Your task to perform on an android device: View the shopping cart on target. Search for usb-c on target, select the first entry, add it to the cart, then select checkout. Image 0: 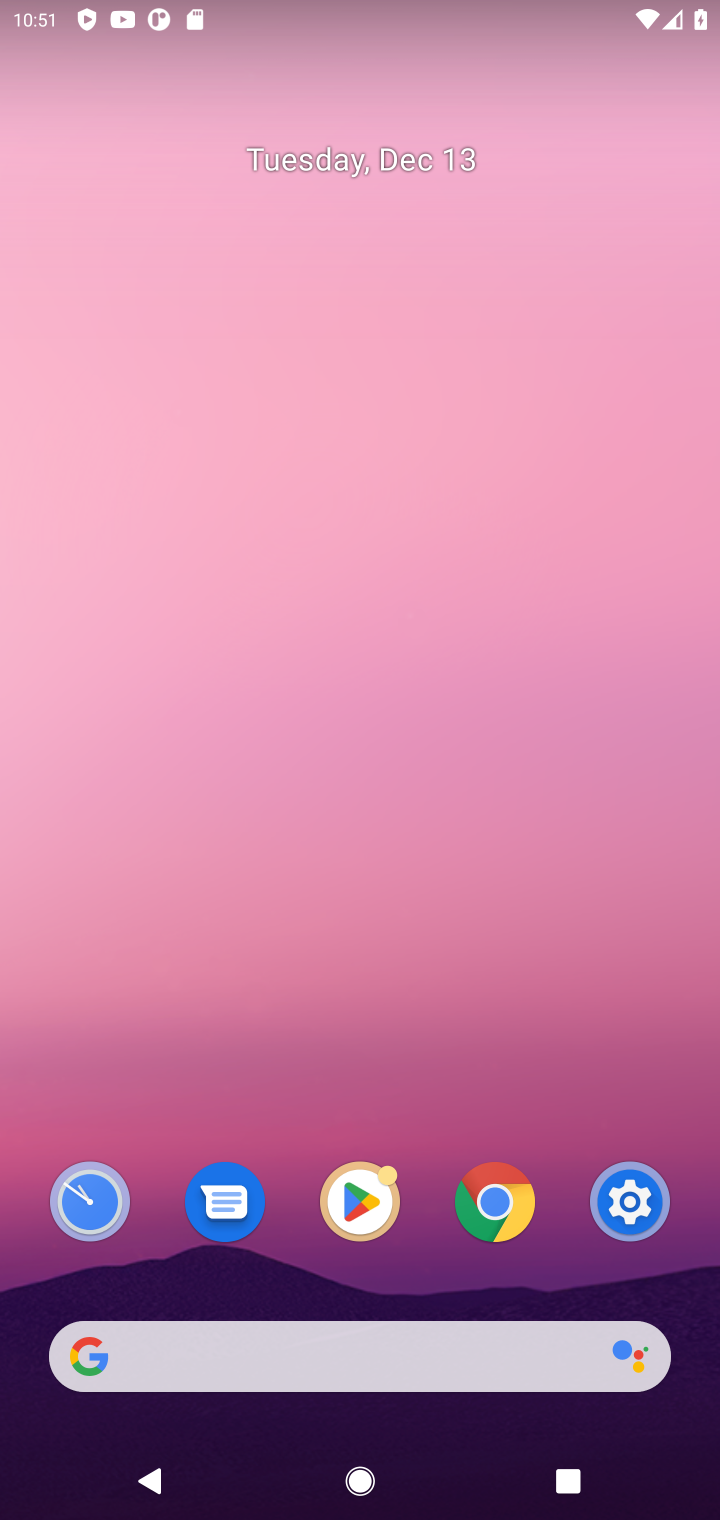
Step 0: click (508, 1196)
Your task to perform on an android device: View the shopping cart on target. Search for usb-c on target, select the first entry, add it to the cart, then select checkout. Image 1: 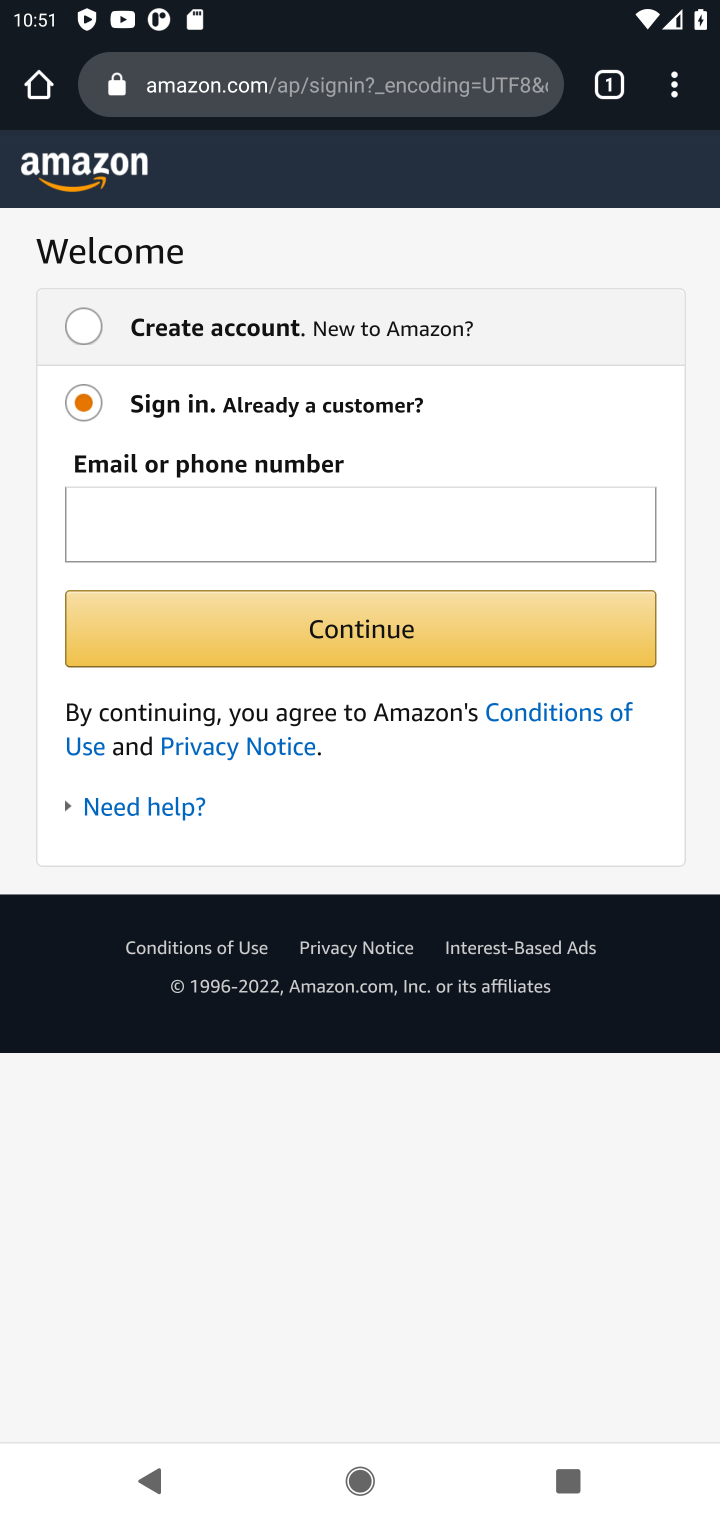
Step 1: click (381, 81)
Your task to perform on an android device: View the shopping cart on target. Search for usb-c on target, select the first entry, add it to the cart, then select checkout. Image 2: 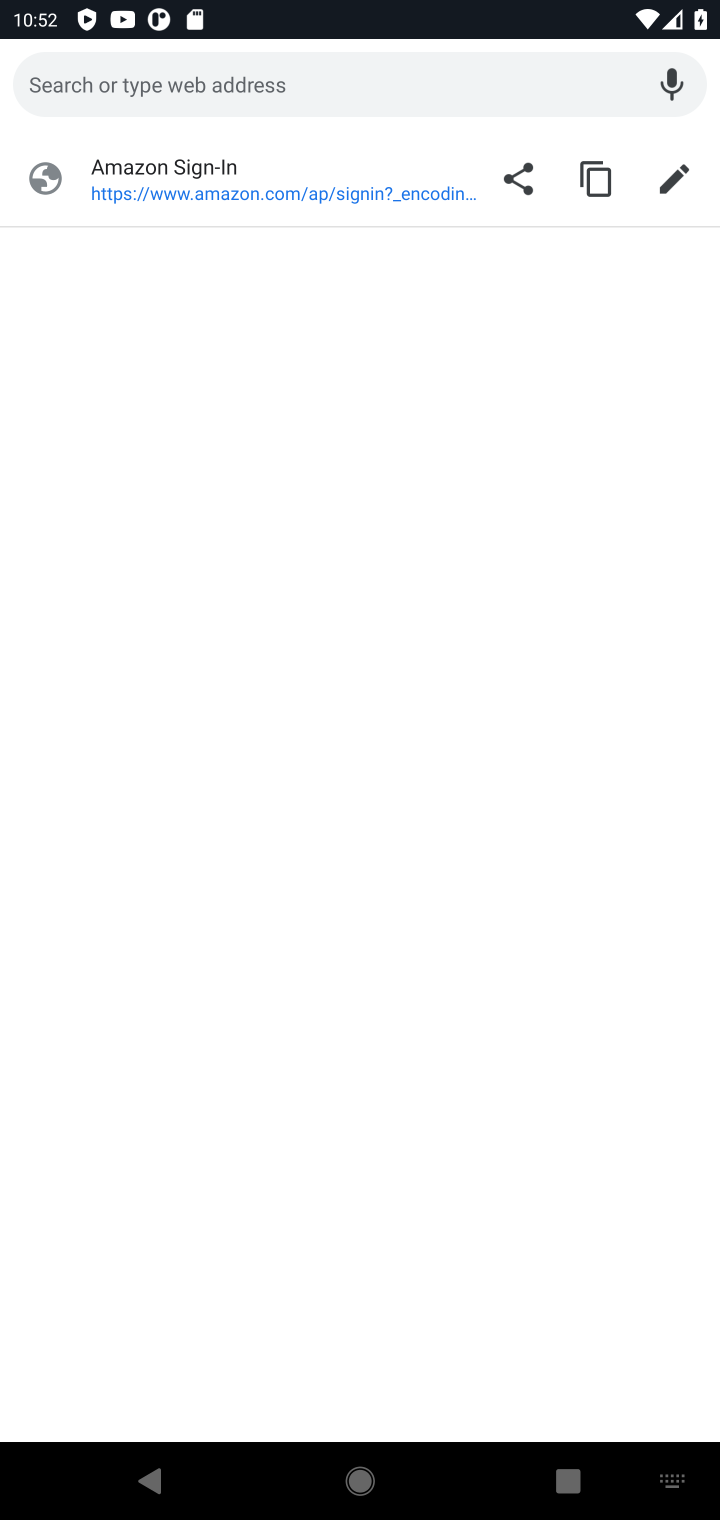
Step 2: type "target"
Your task to perform on an android device: View the shopping cart on target. Search for usb-c on target, select the first entry, add it to the cart, then select checkout. Image 3: 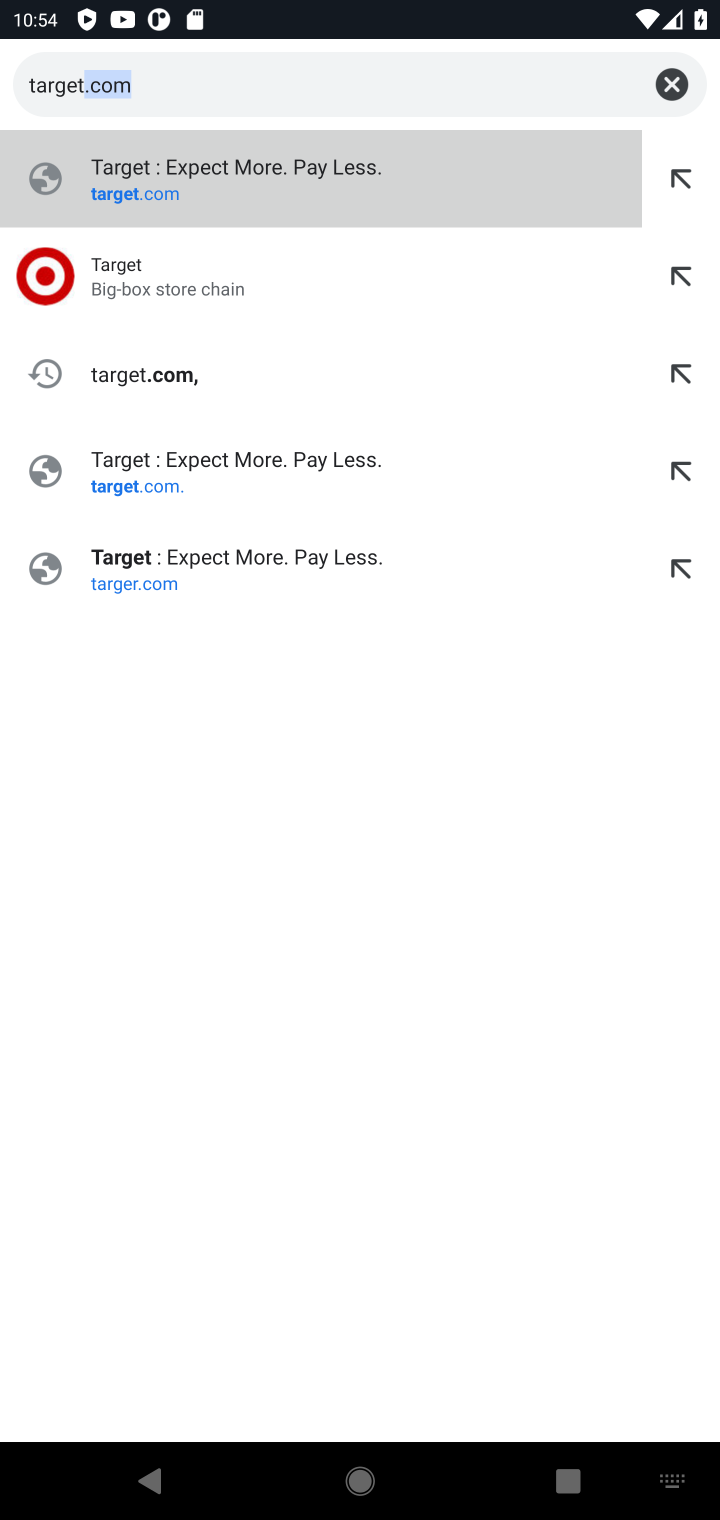
Step 3: click (331, 200)
Your task to perform on an android device: View the shopping cart on target. Search for usb-c on target, select the first entry, add it to the cart, then select checkout. Image 4: 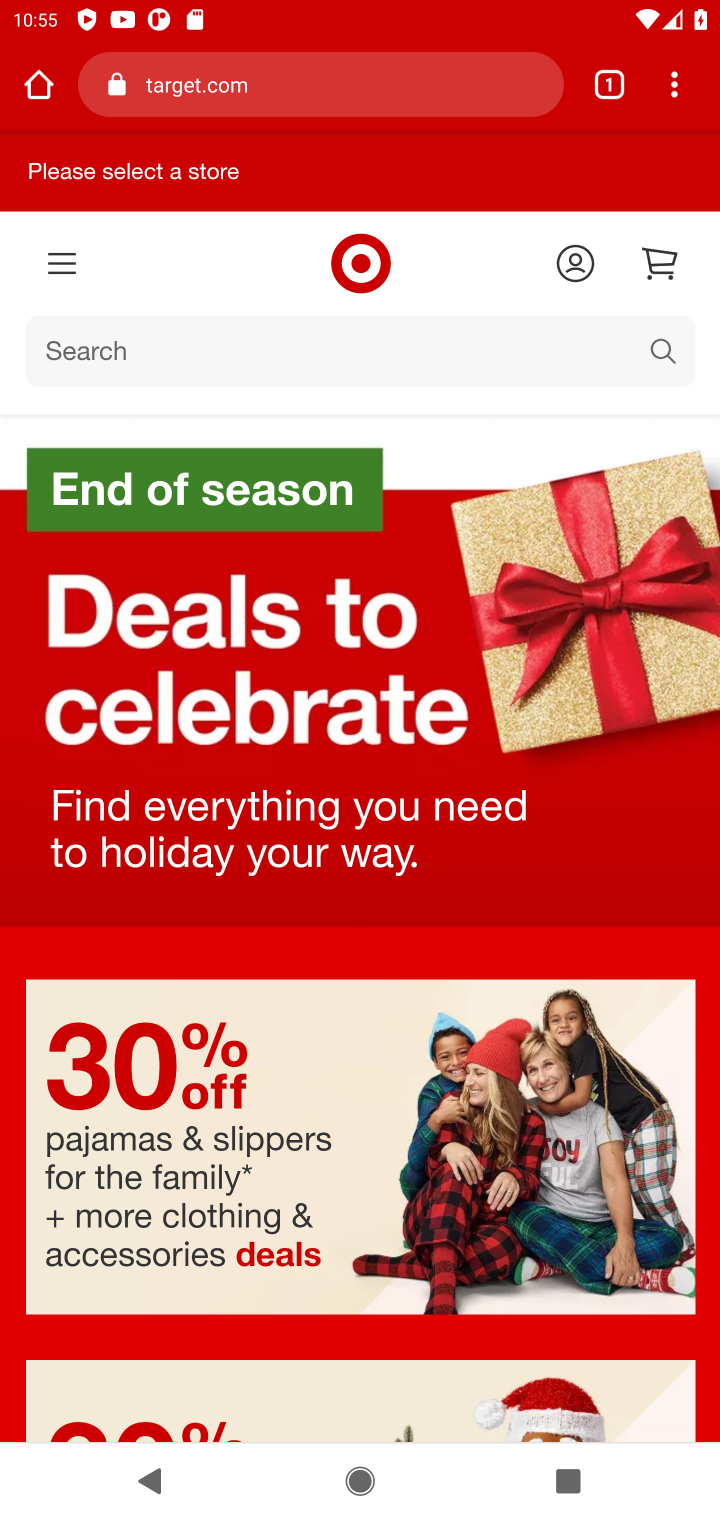
Step 4: click (418, 352)
Your task to perform on an android device: View the shopping cart on target. Search for usb-c on target, select the first entry, add it to the cart, then select checkout. Image 5: 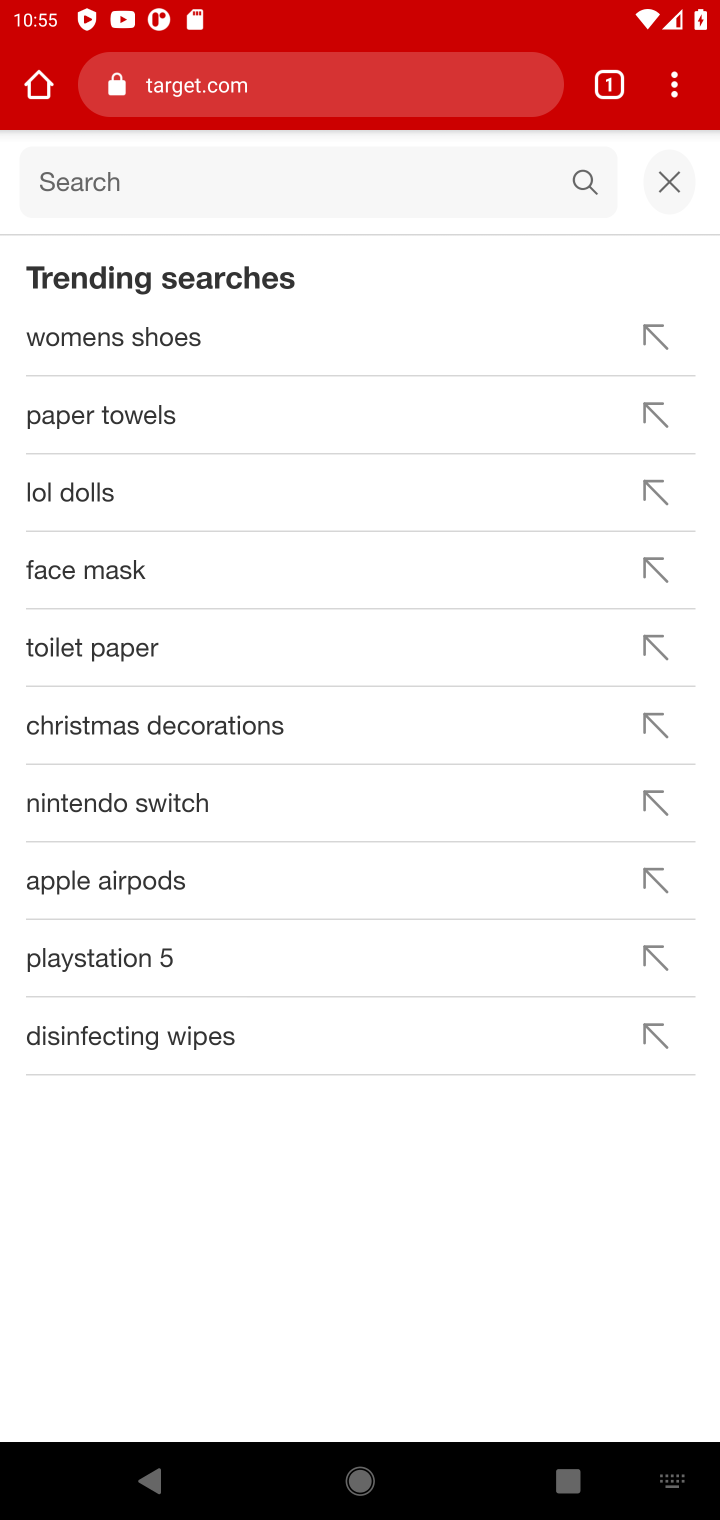
Step 5: type " usb-c"
Your task to perform on an android device: View the shopping cart on target. Search for usb-c on target, select the first entry, add it to the cart, then select checkout. Image 6: 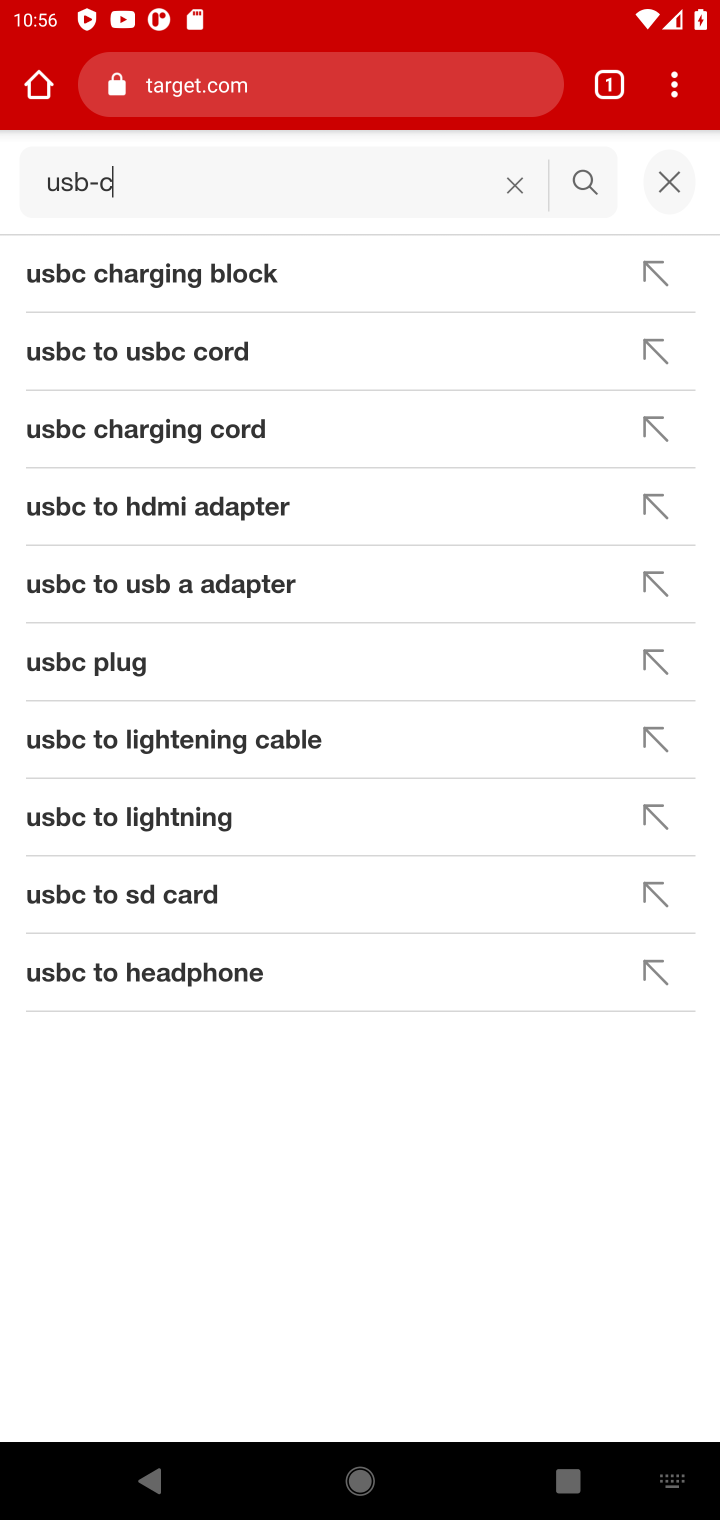
Step 6: click (170, 268)
Your task to perform on an android device: View the shopping cart on target. Search for usb-c on target, select the first entry, add it to the cart, then select checkout. Image 7: 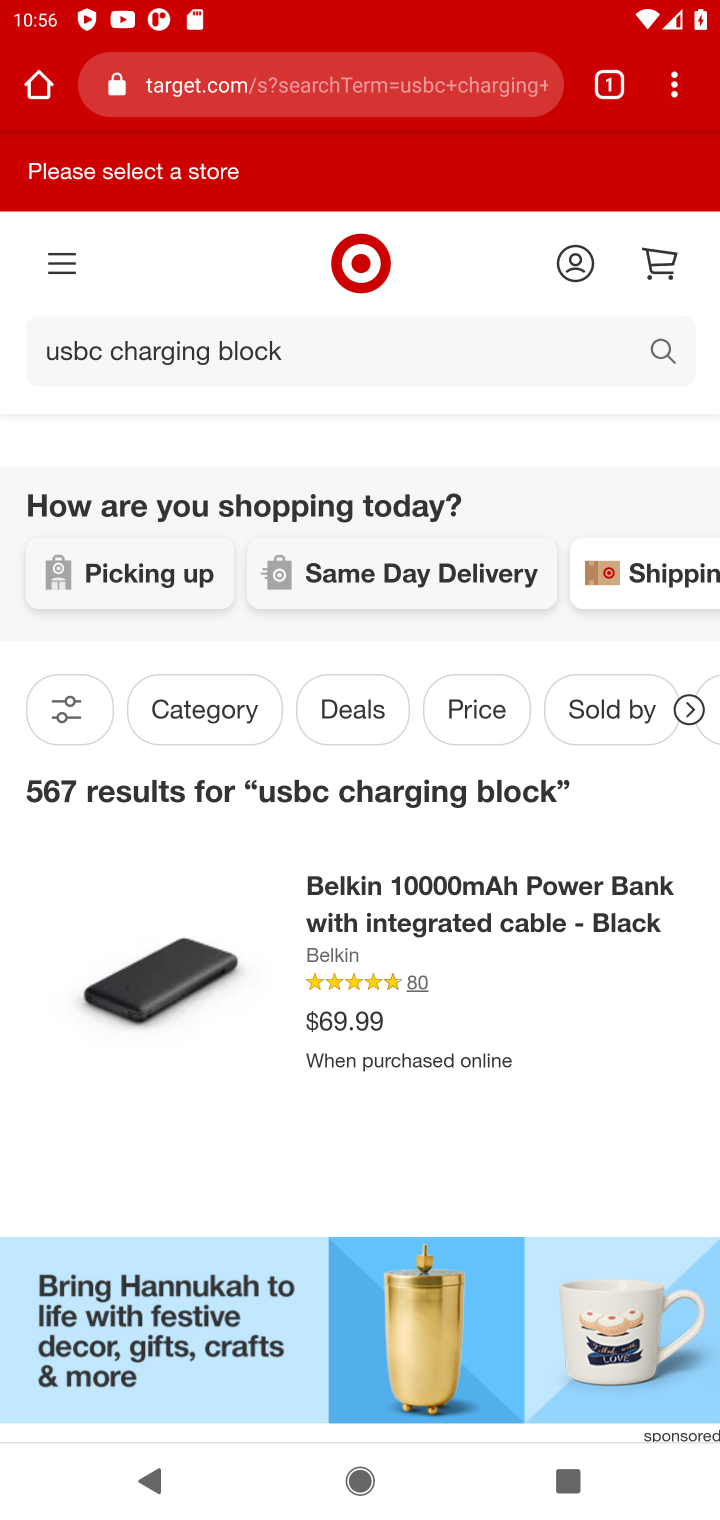
Step 7: click (363, 946)
Your task to perform on an android device: View the shopping cart on target. Search for usb-c on target, select the first entry, add it to the cart, then select checkout. Image 8: 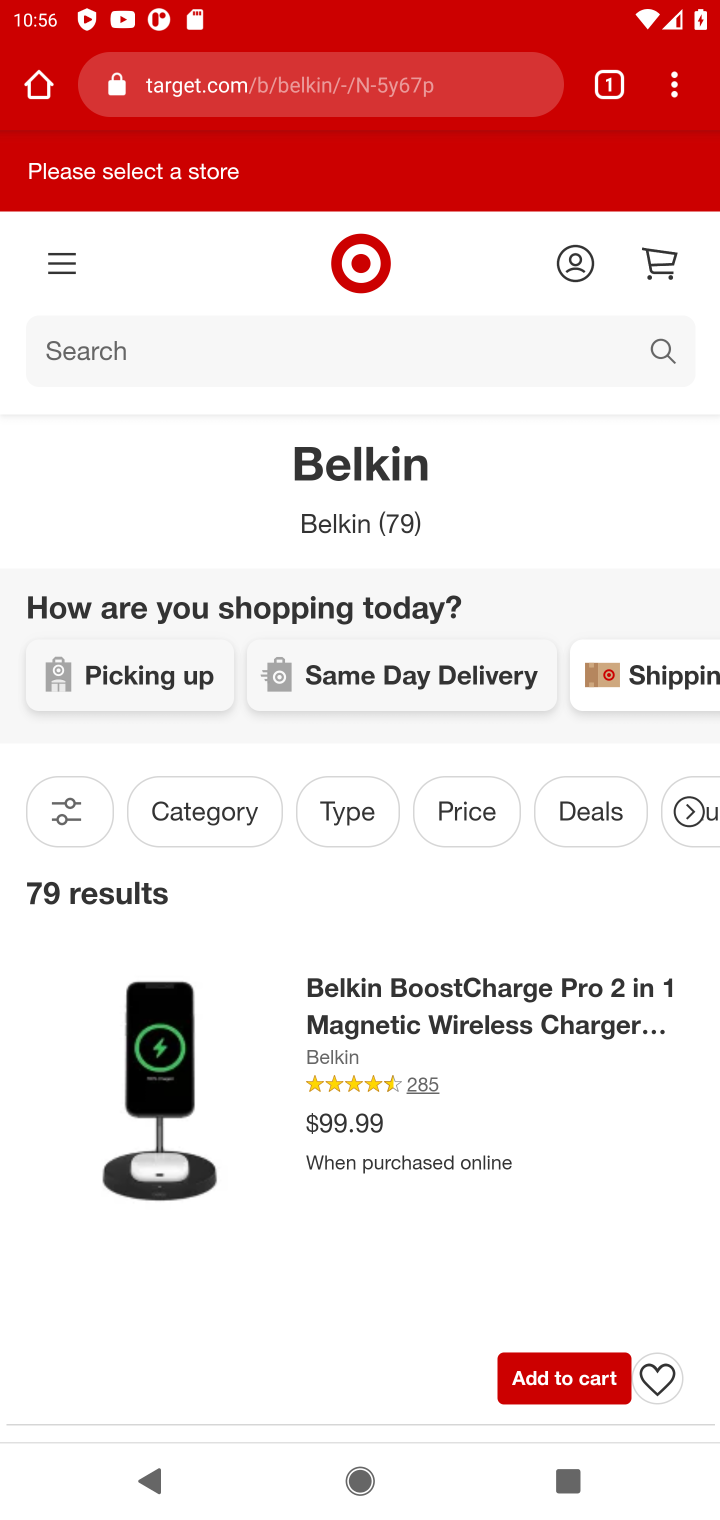
Step 8: click (559, 1382)
Your task to perform on an android device: View the shopping cart on target. Search for usb-c on target, select the first entry, add it to the cart, then select checkout. Image 9: 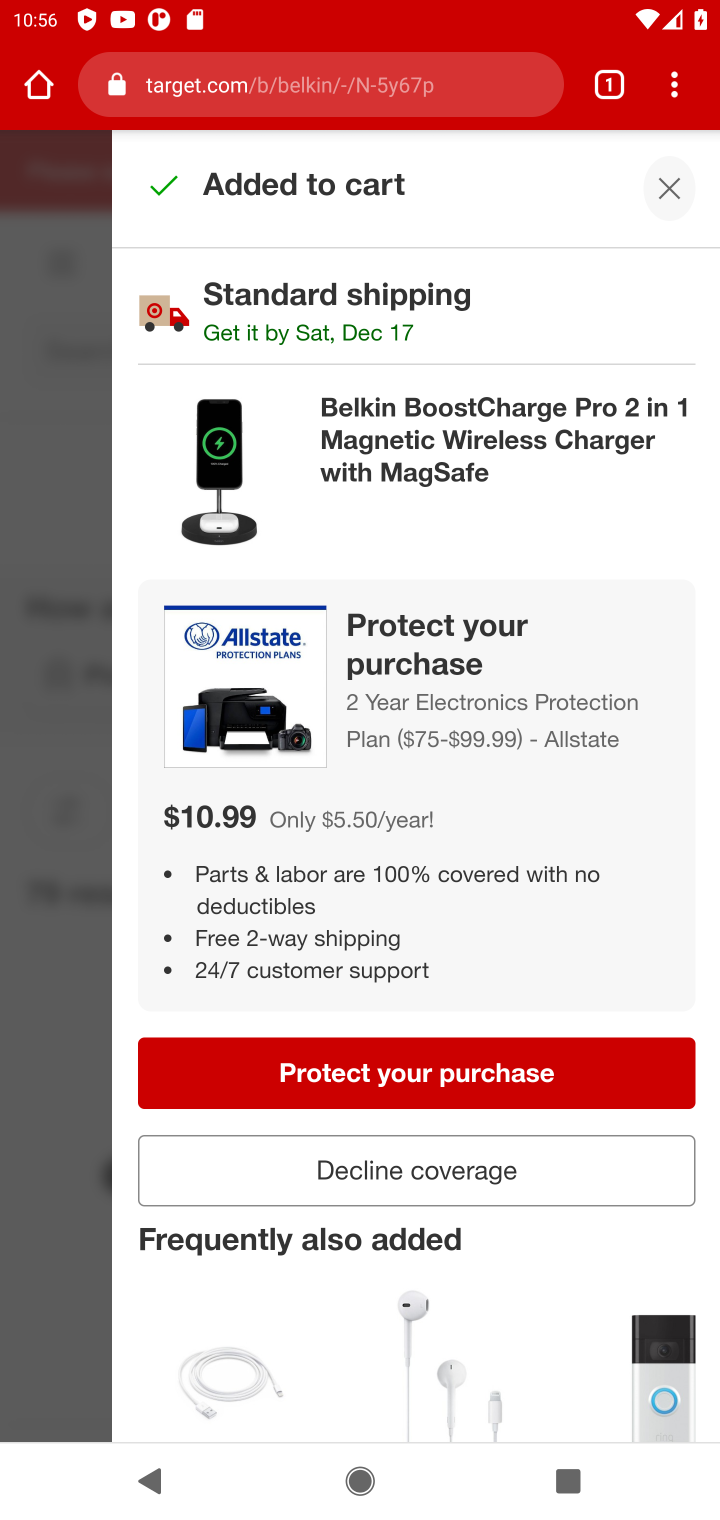
Step 9: click (391, 1177)
Your task to perform on an android device: View the shopping cart on target. Search for usb-c on target, select the first entry, add it to the cart, then select checkout. Image 10: 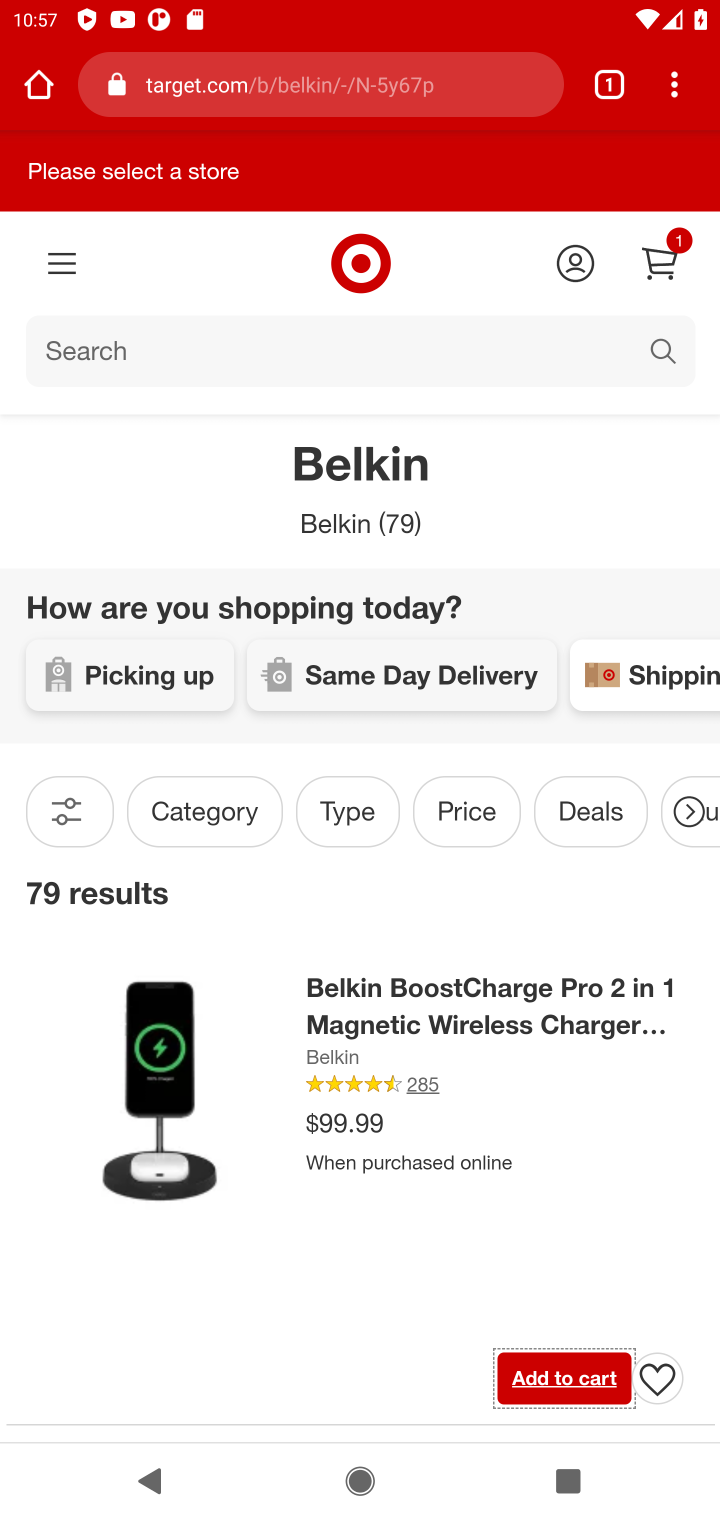
Step 10: click (665, 249)
Your task to perform on an android device: View the shopping cart on target. Search for usb-c on target, select the first entry, add it to the cart, then select checkout. Image 11: 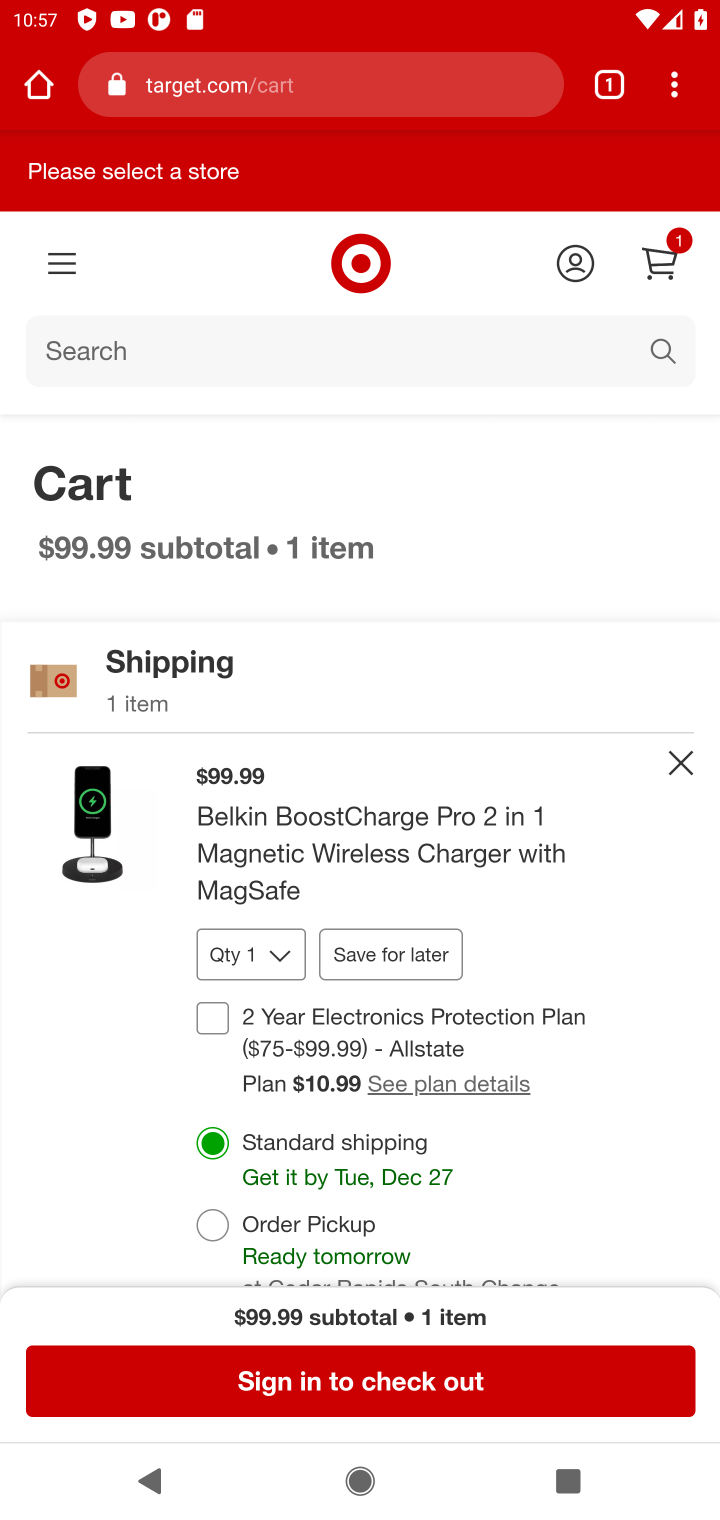
Step 11: click (429, 1377)
Your task to perform on an android device: View the shopping cart on target. Search for usb-c on target, select the first entry, add it to the cart, then select checkout. Image 12: 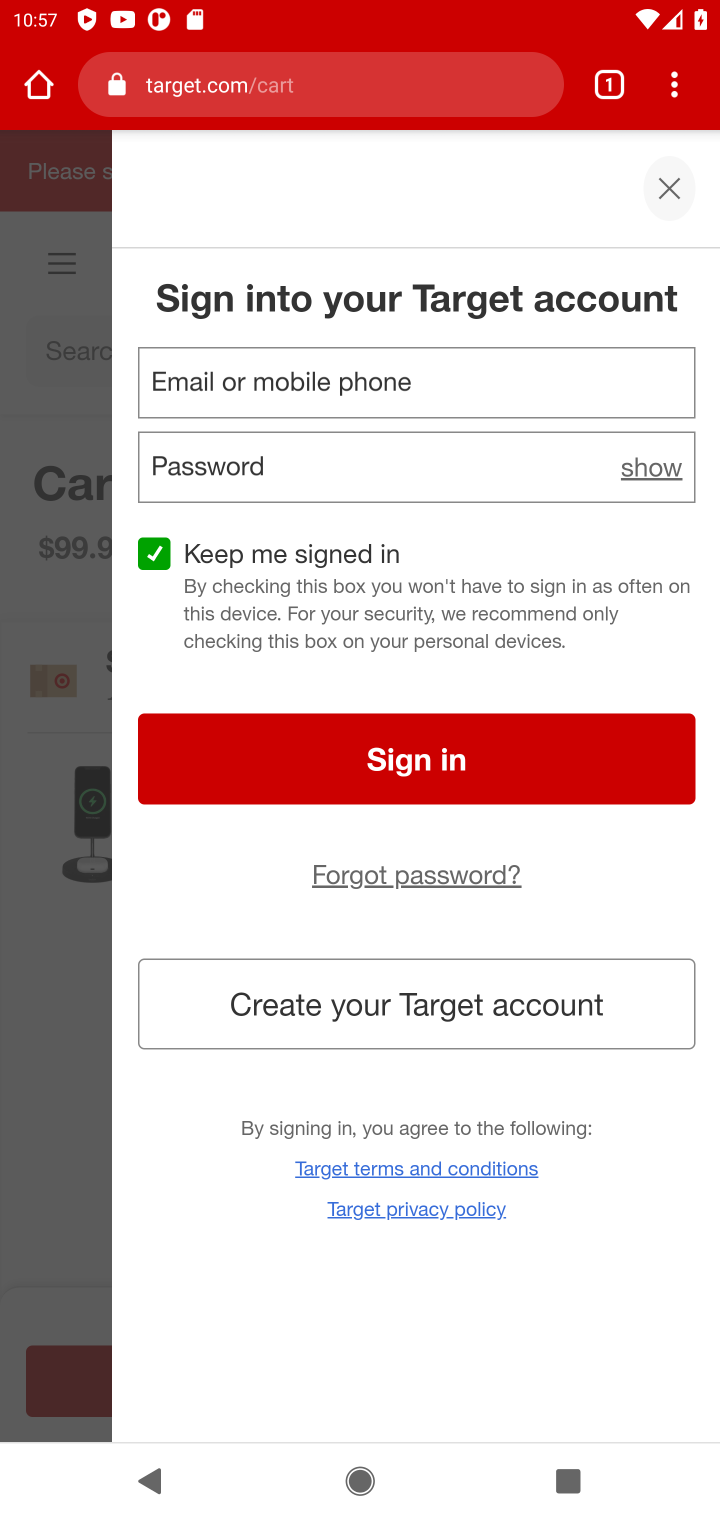
Step 12: task complete